Your task to perform on an android device: change the clock display to analog Image 0: 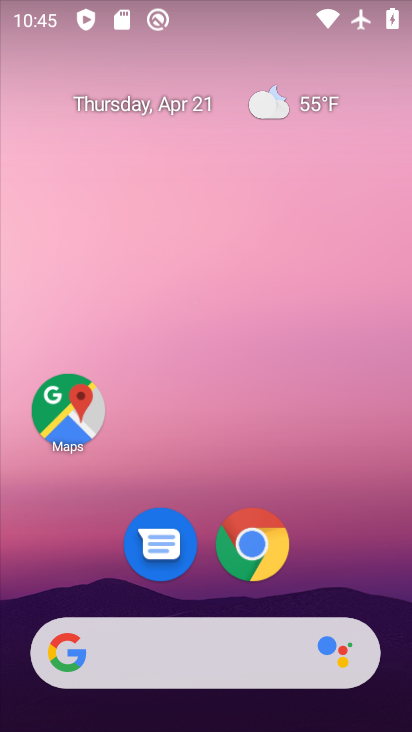
Step 0: drag from (351, 463) to (281, 36)
Your task to perform on an android device: change the clock display to analog Image 1: 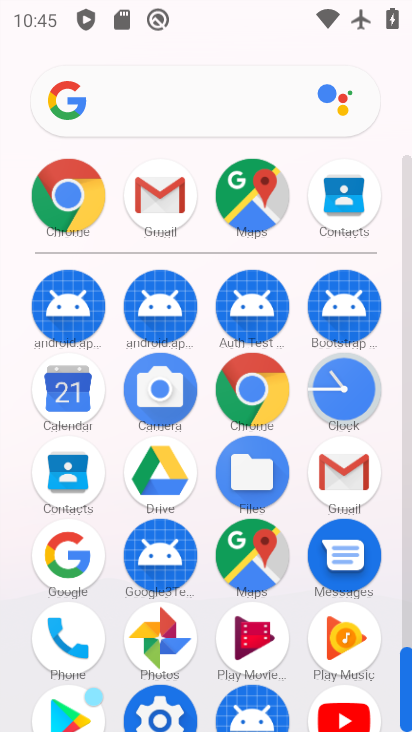
Step 1: drag from (20, 575) to (23, 353)
Your task to perform on an android device: change the clock display to analog Image 2: 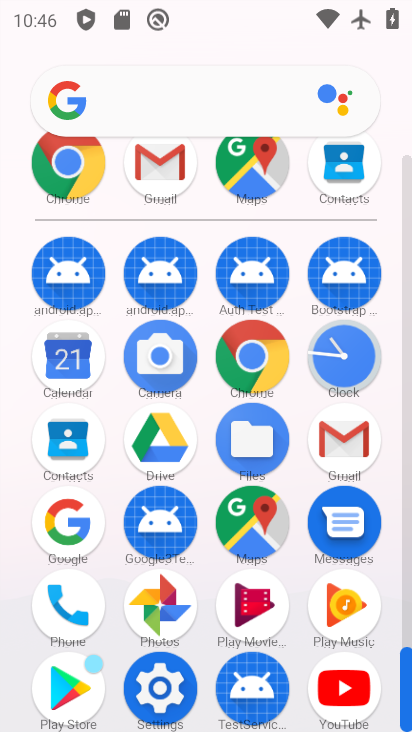
Step 2: click (345, 361)
Your task to perform on an android device: change the clock display to analog Image 3: 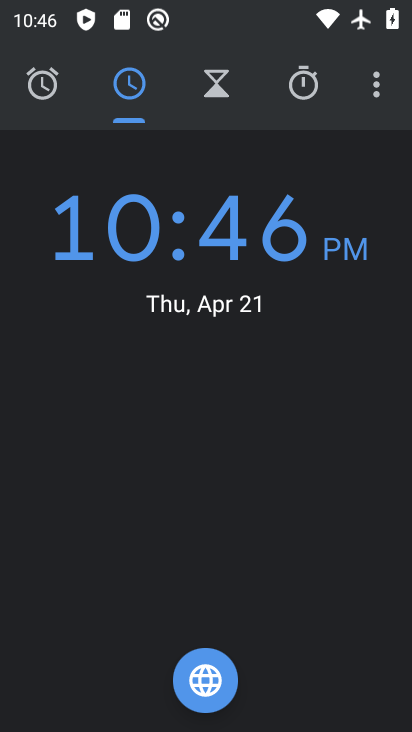
Step 3: drag from (387, 89) to (322, 155)
Your task to perform on an android device: change the clock display to analog Image 4: 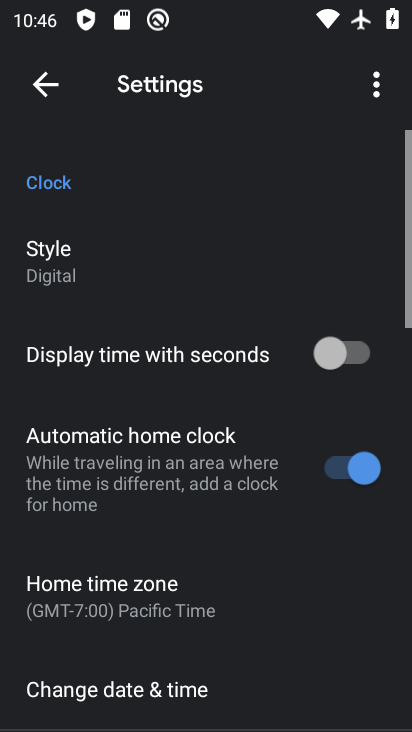
Step 4: click (372, 80)
Your task to perform on an android device: change the clock display to analog Image 5: 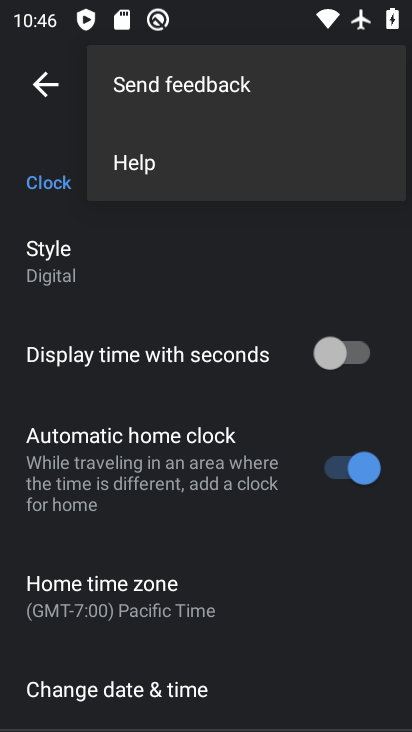
Step 5: drag from (143, 486) to (168, 305)
Your task to perform on an android device: change the clock display to analog Image 6: 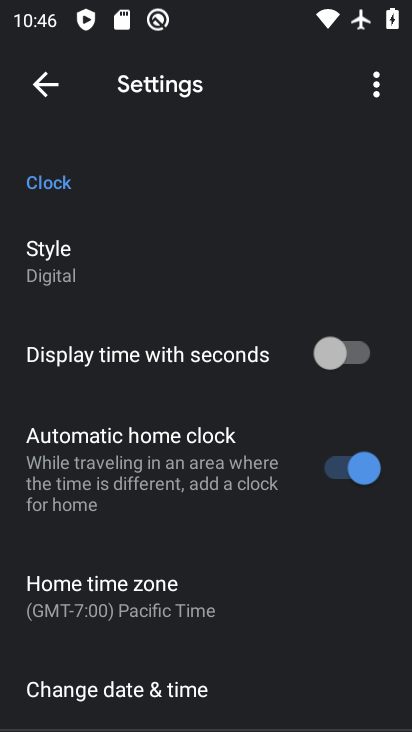
Step 6: click (100, 261)
Your task to perform on an android device: change the clock display to analog Image 7: 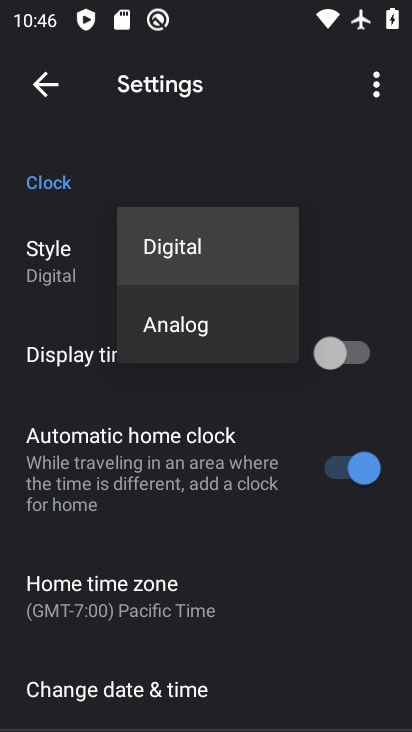
Step 7: click (164, 305)
Your task to perform on an android device: change the clock display to analog Image 8: 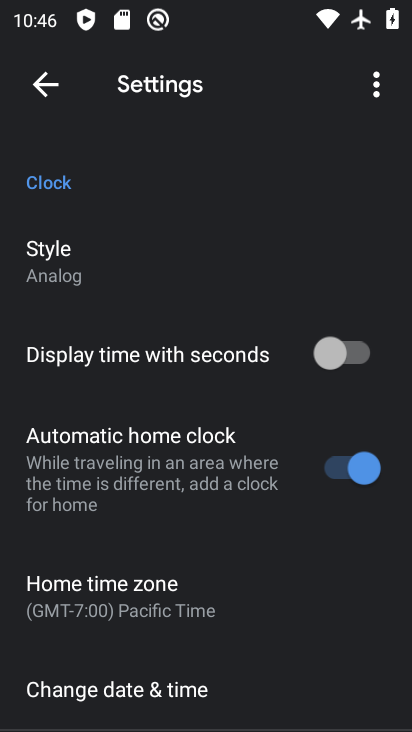
Step 8: task complete